Your task to perform on an android device: add a label to a message in the gmail app Image 0: 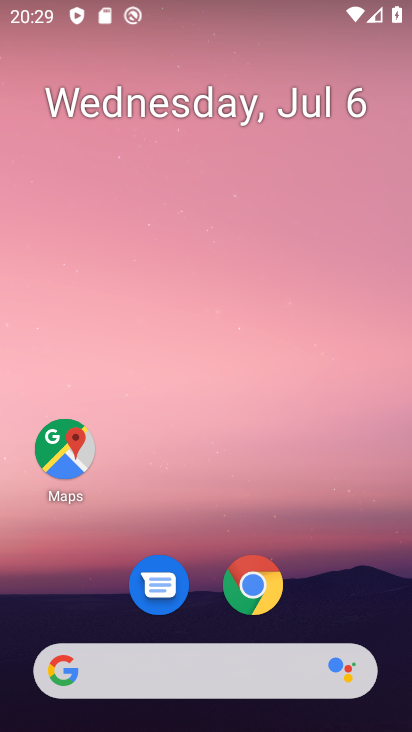
Step 0: drag from (217, 497) to (240, 0)
Your task to perform on an android device: add a label to a message in the gmail app Image 1: 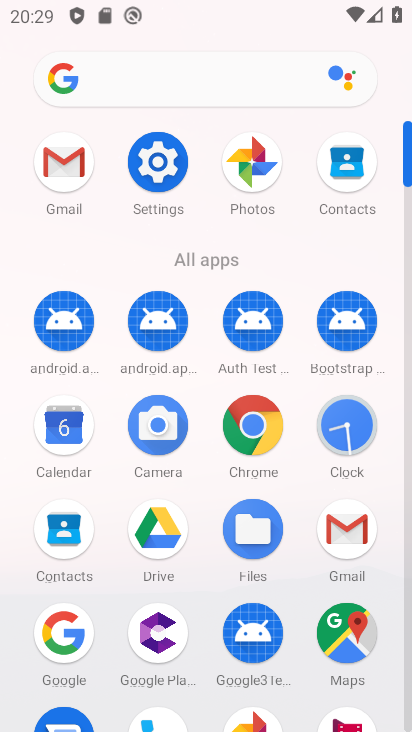
Step 1: click (63, 175)
Your task to perform on an android device: add a label to a message in the gmail app Image 2: 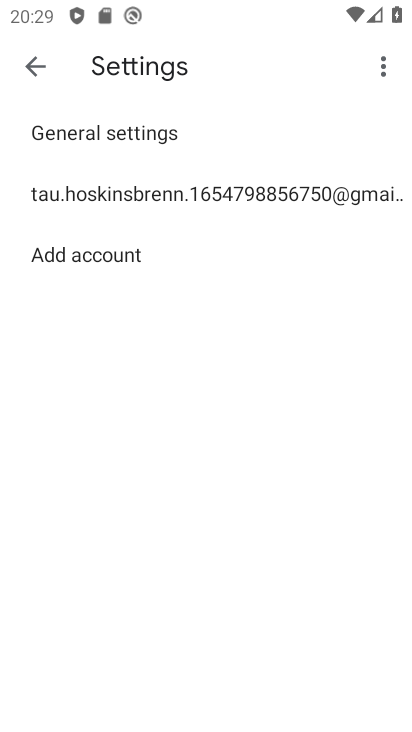
Step 2: click (40, 57)
Your task to perform on an android device: add a label to a message in the gmail app Image 3: 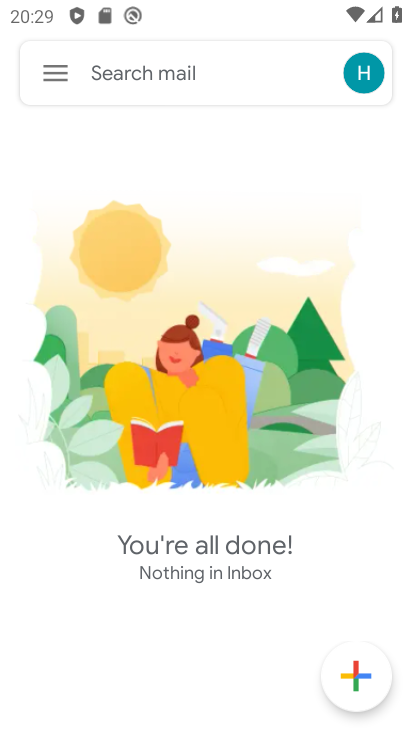
Step 3: click (53, 75)
Your task to perform on an android device: add a label to a message in the gmail app Image 4: 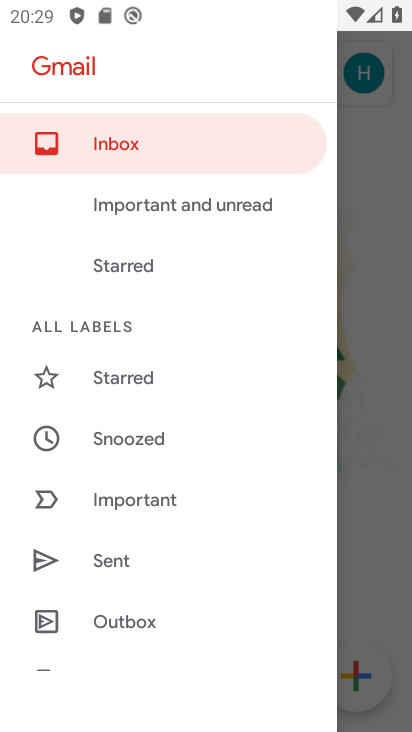
Step 4: drag from (200, 537) to (190, 130)
Your task to perform on an android device: add a label to a message in the gmail app Image 5: 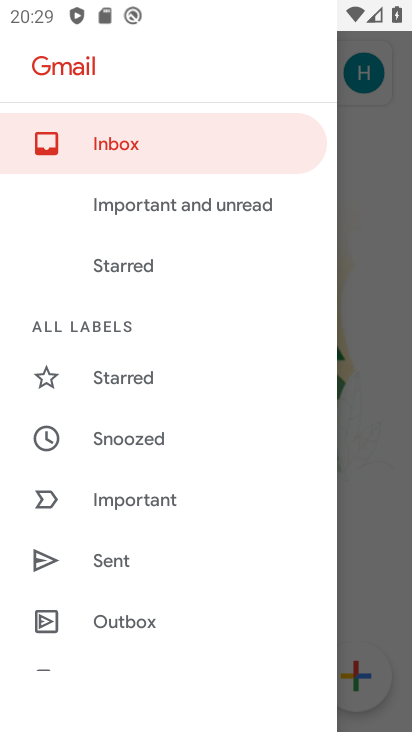
Step 5: drag from (117, 542) to (159, 67)
Your task to perform on an android device: add a label to a message in the gmail app Image 6: 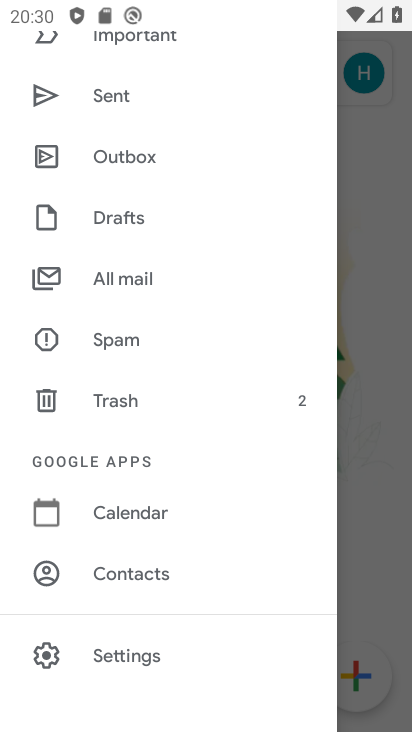
Step 6: drag from (146, 517) to (174, 335)
Your task to perform on an android device: add a label to a message in the gmail app Image 7: 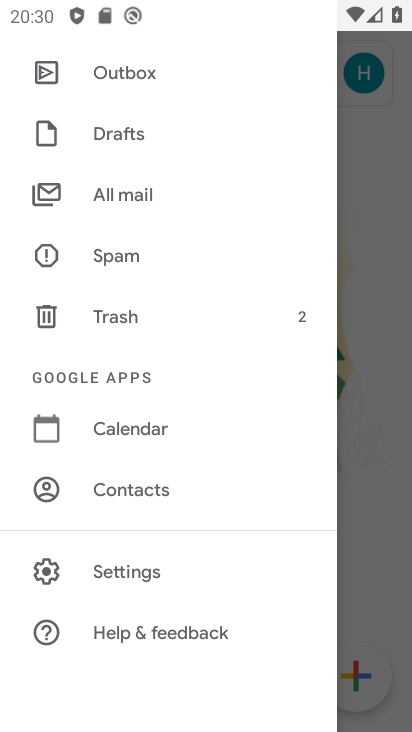
Step 7: click (147, 194)
Your task to perform on an android device: add a label to a message in the gmail app Image 8: 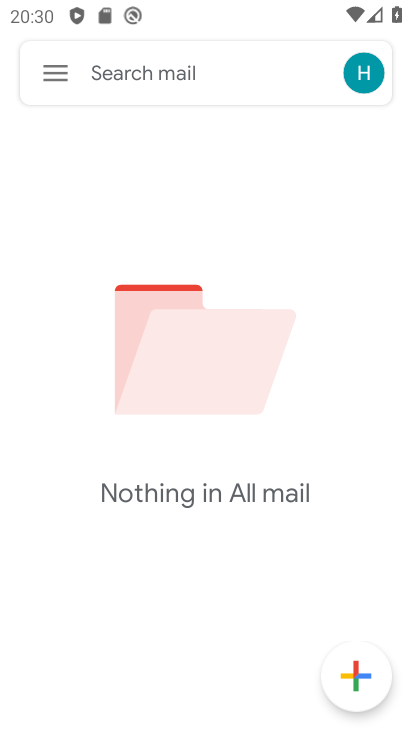
Step 8: task complete